Your task to perform on an android device: Go to Wikipedia Image 0: 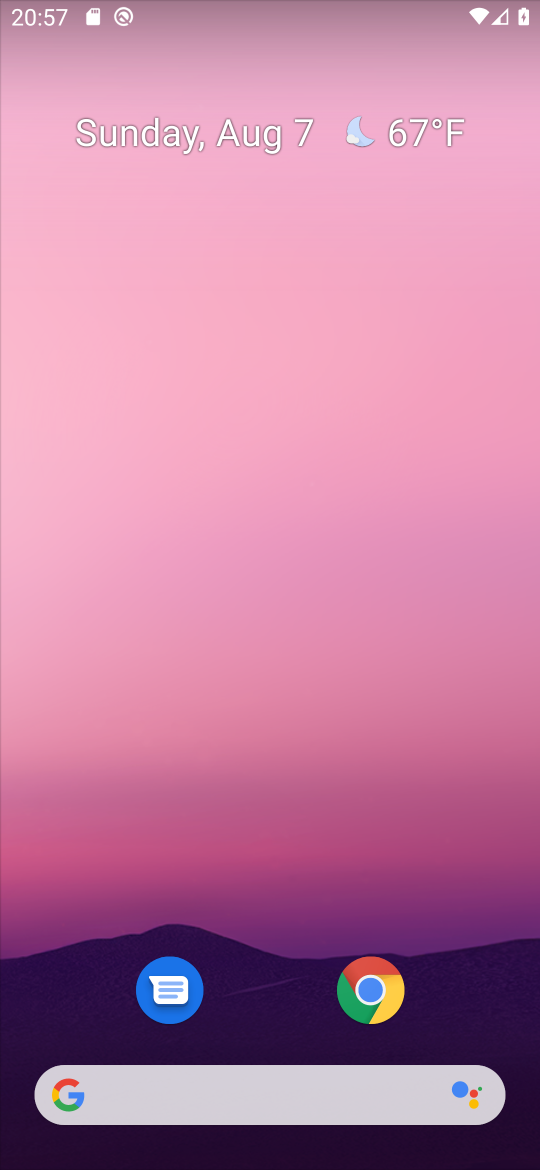
Step 0: click (365, 983)
Your task to perform on an android device: Go to Wikipedia Image 1: 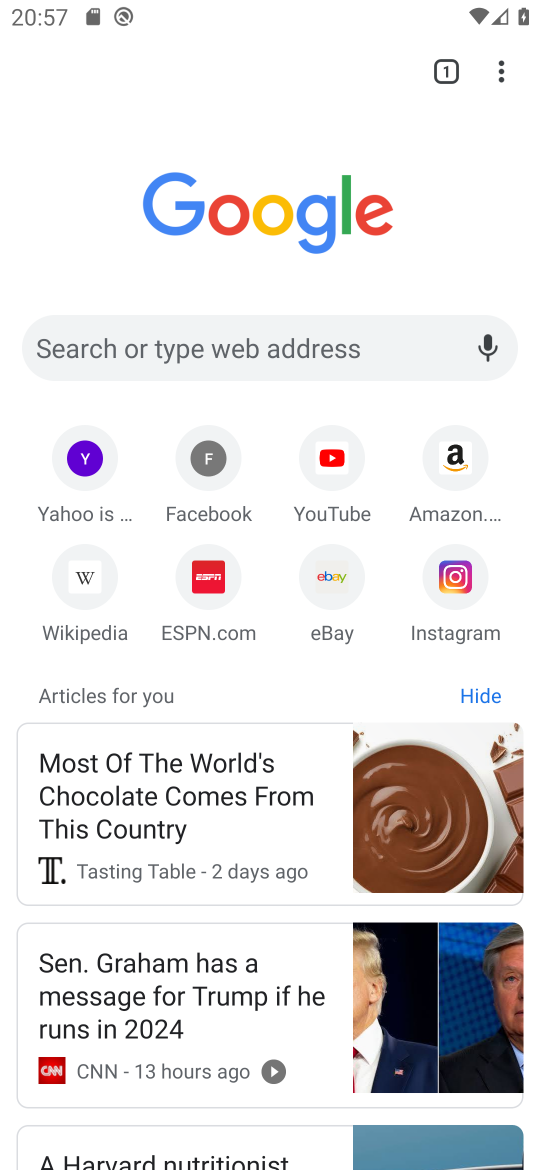
Step 1: click (81, 567)
Your task to perform on an android device: Go to Wikipedia Image 2: 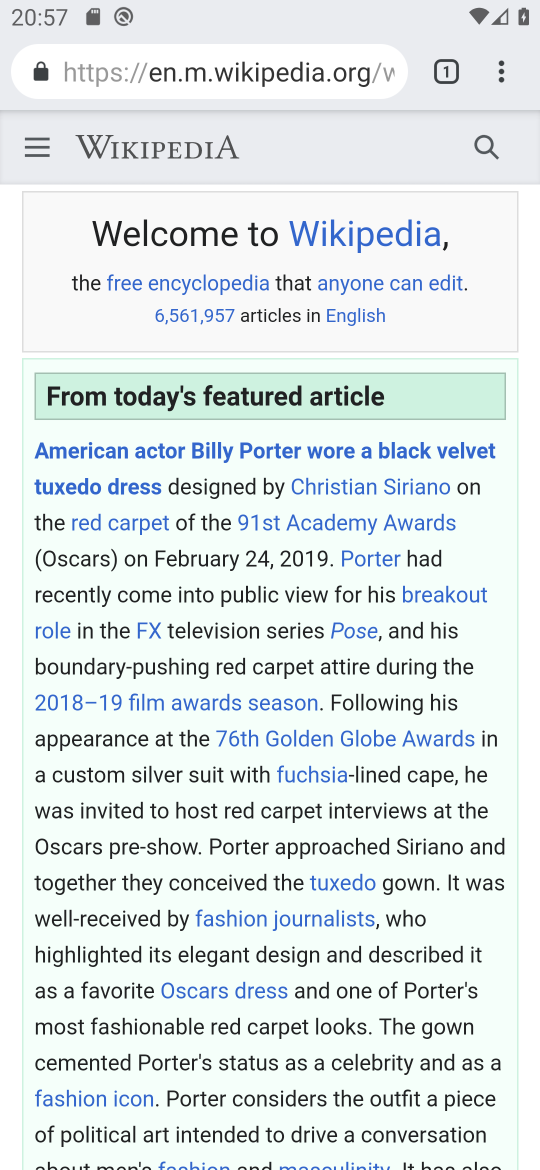
Step 2: task complete